Your task to perform on an android device: find which apps use the phone's location Image 0: 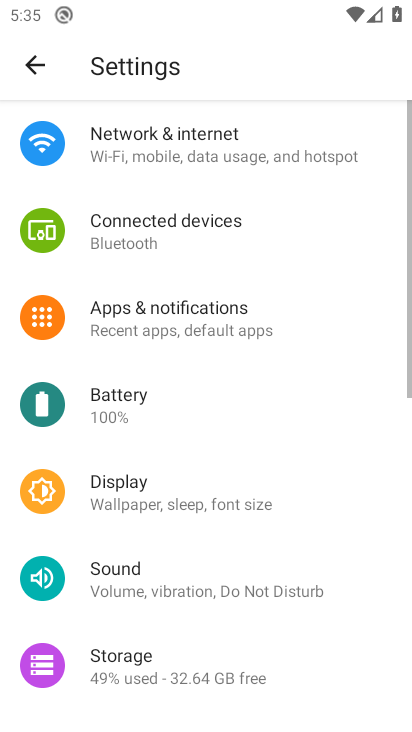
Step 0: drag from (164, 354) to (148, 198)
Your task to perform on an android device: find which apps use the phone's location Image 1: 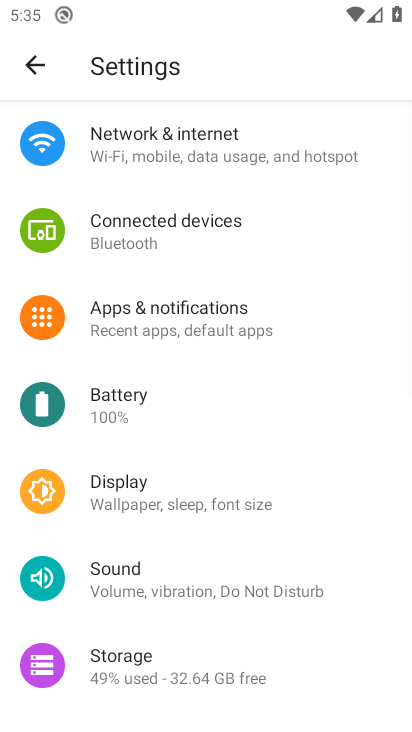
Step 1: click (32, 56)
Your task to perform on an android device: find which apps use the phone's location Image 2: 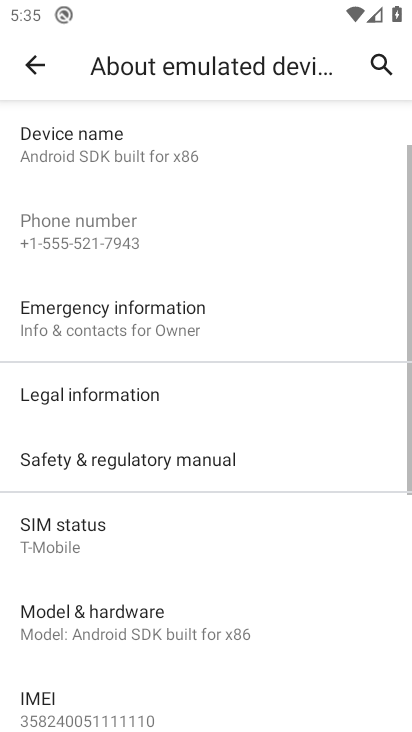
Step 2: press back button
Your task to perform on an android device: find which apps use the phone's location Image 3: 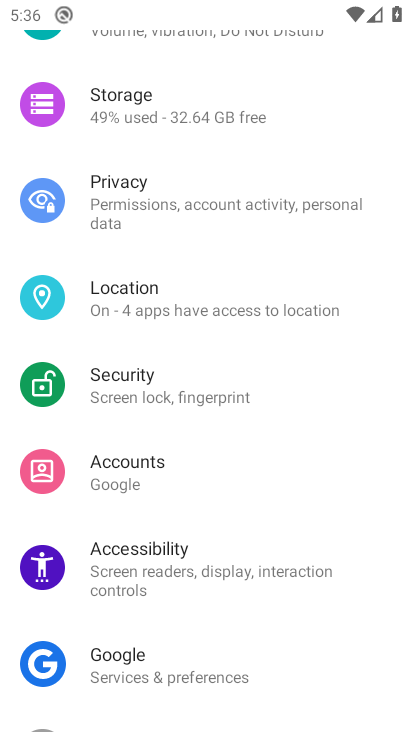
Step 3: drag from (208, 581) to (129, 176)
Your task to perform on an android device: find which apps use the phone's location Image 4: 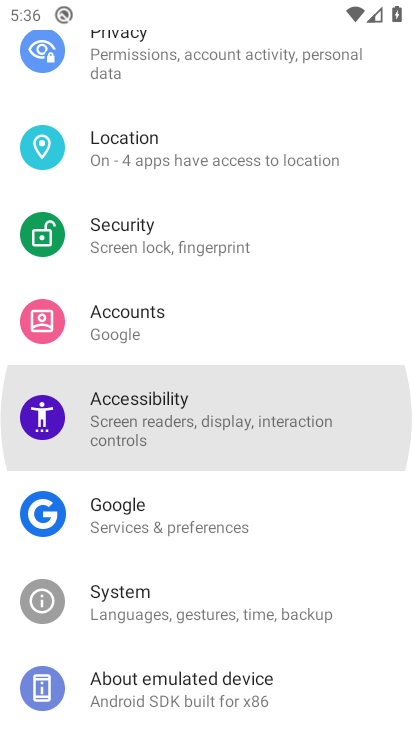
Step 4: drag from (134, 612) to (122, 230)
Your task to perform on an android device: find which apps use the phone's location Image 5: 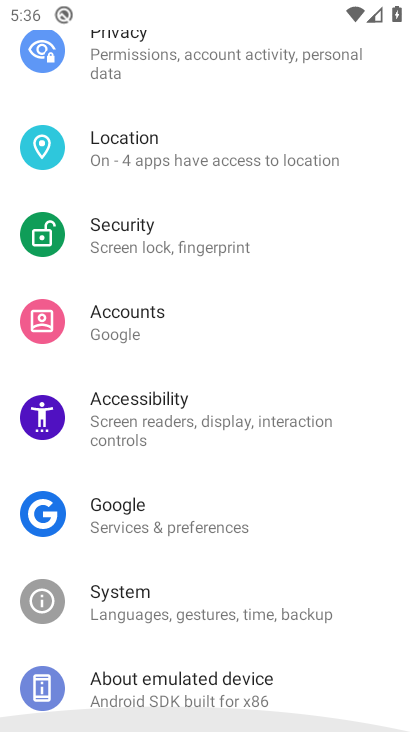
Step 5: drag from (150, 478) to (109, 216)
Your task to perform on an android device: find which apps use the phone's location Image 6: 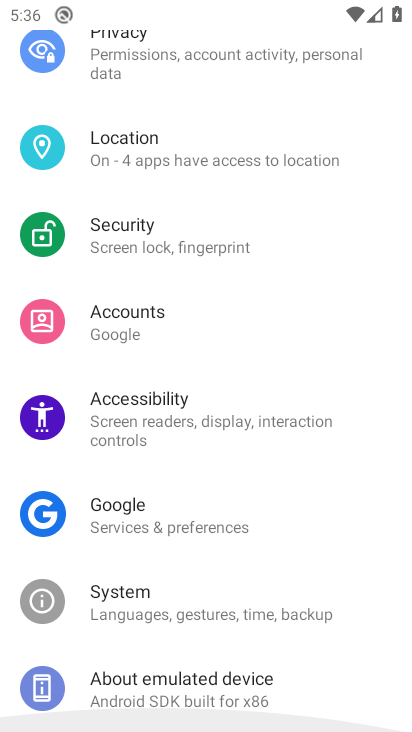
Step 6: drag from (165, 537) to (130, 228)
Your task to perform on an android device: find which apps use the phone's location Image 7: 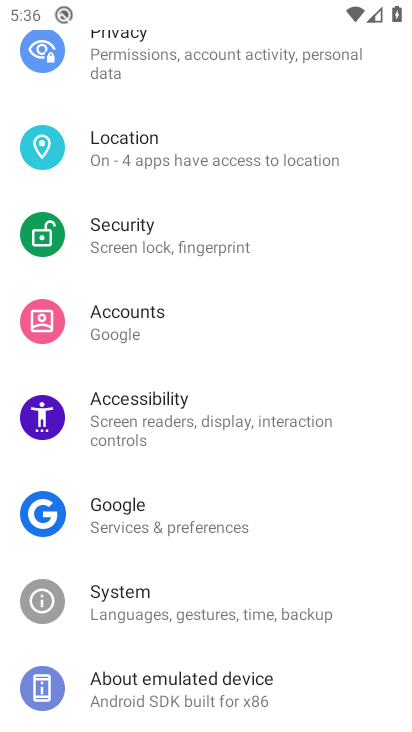
Step 7: click (117, 164)
Your task to perform on an android device: find which apps use the phone's location Image 8: 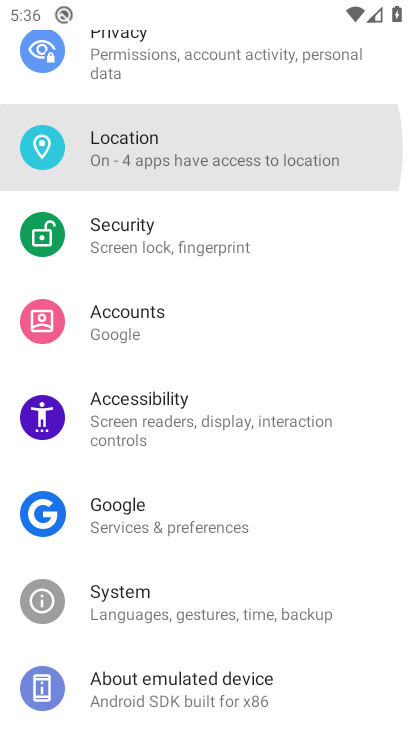
Step 8: click (125, 147)
Your task to perform on an android device: find which apps use the phone's location Image 9: 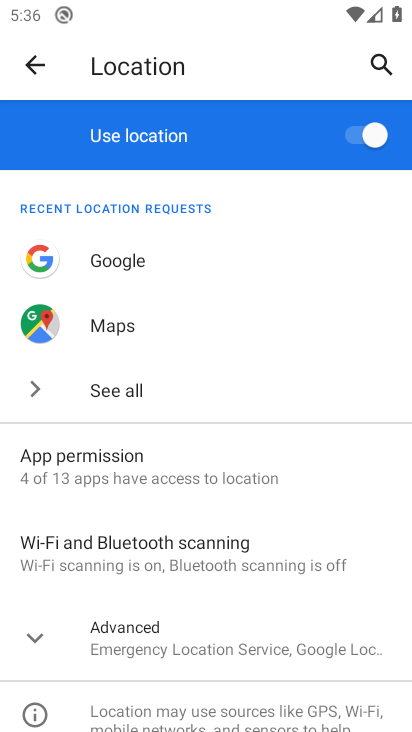
Step 9: click (88, 460)
Your task to perform on an android device: find which apps use the phone's location Image 10: 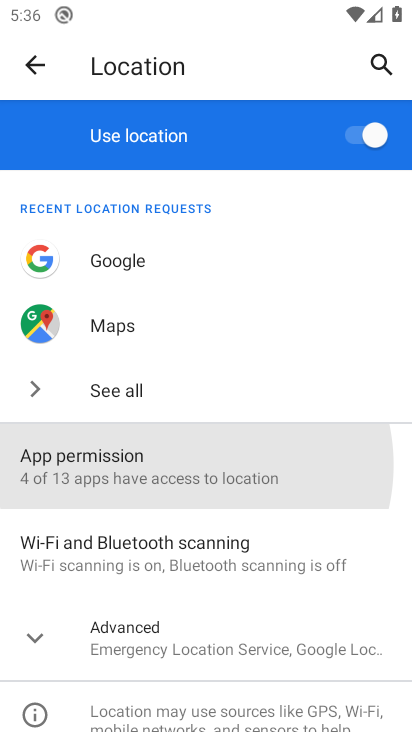
Step 10: click (91, 458)
Your task to perform on an android device: find which apps use the phone's location Image 11: 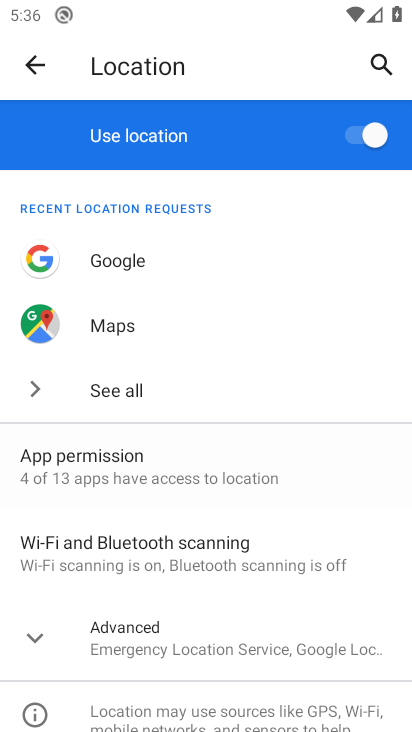
Step 11: click (97, 458)
Your task to perform on an android device: find which apps use the phone's location Image 12: 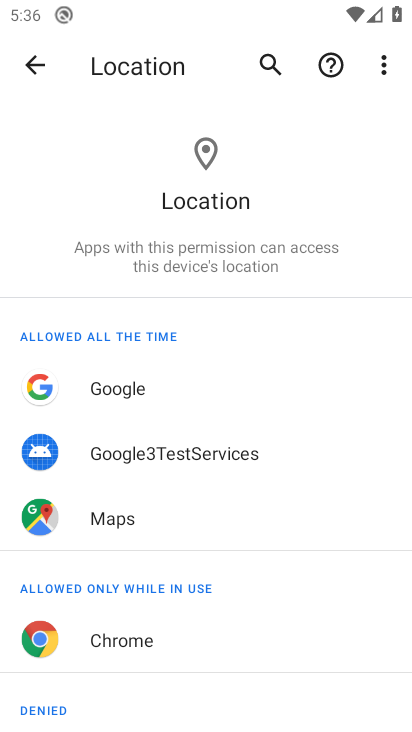
Step 12: task complete